Your task to perform on an android device: Go to Wikipedia Image 0: 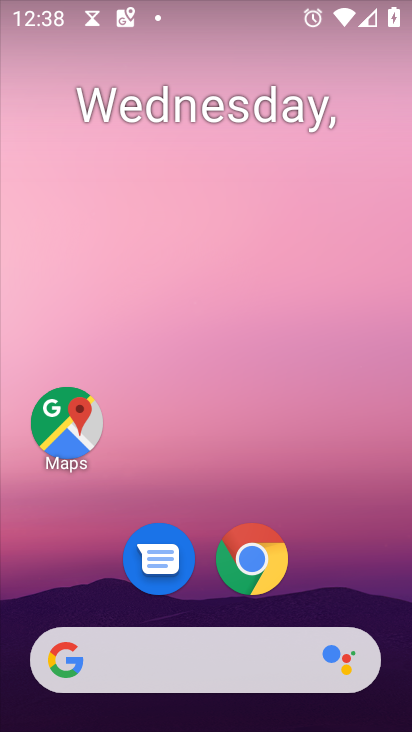
Step 0: drag from (366, 344) to (123, 26)
Your task to perform on an android device: Go to Wikipedia Image 1: 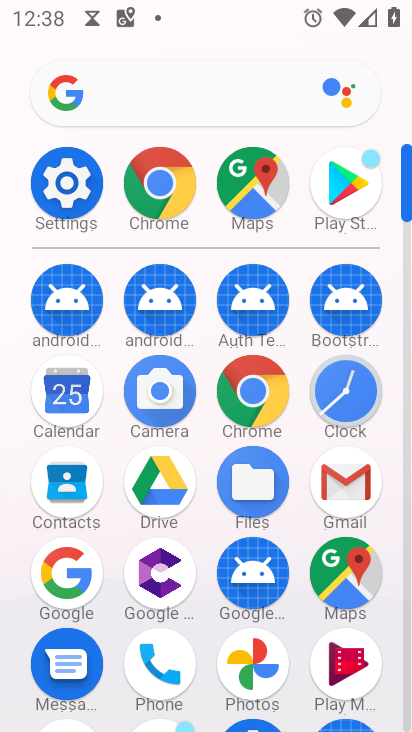
Step 1: click (161, 171)
Your task to perform on an android device: Go to Wikipedia Image 2: 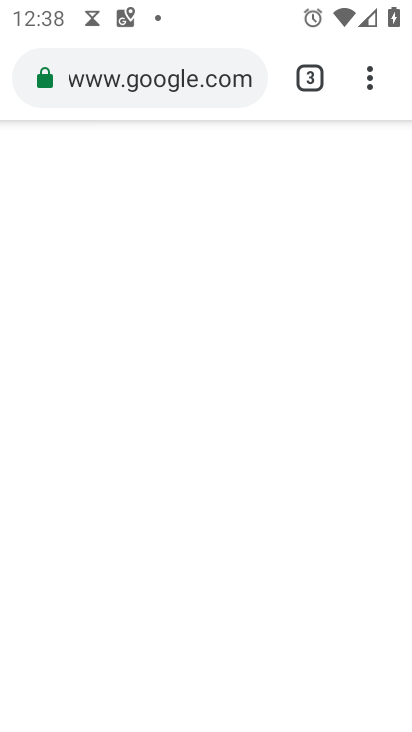
Step 2: click (204, 88)
Your task to perform on an android device: Go to Wikipedia Image 3: 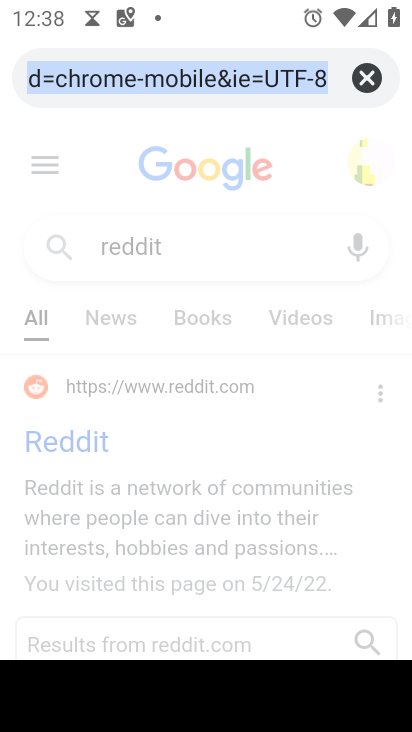
Step 3: click (370, 87)
Your task to perform on an android device: Go to Wikipedia Image 4: 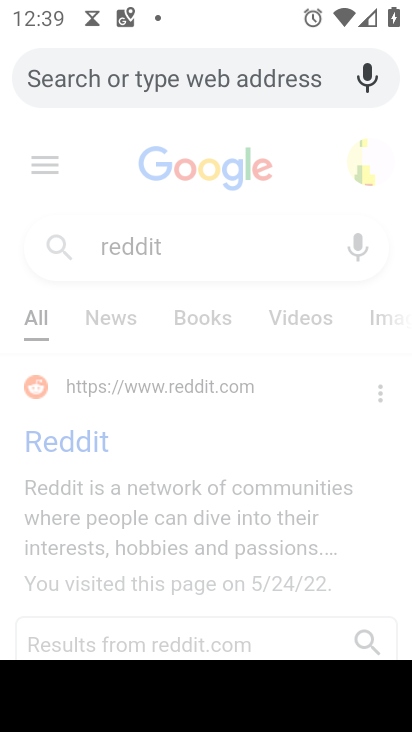
Step 4: type "wikipedia"
Your task to perform on an android device: Go to Wikipedia Image 5: 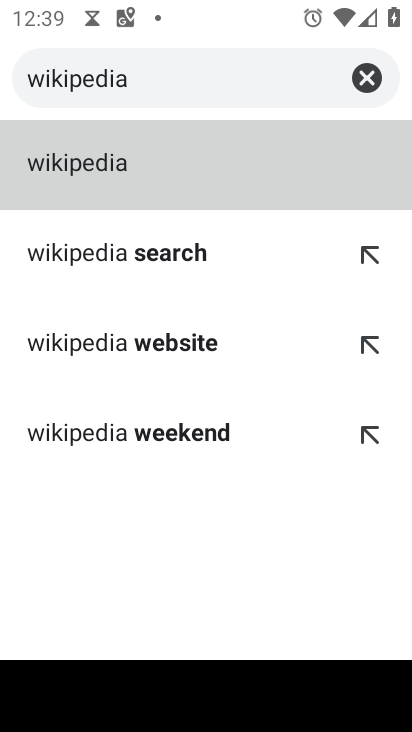
Step 5: click (69, 189)
Your task to perform on an android device: Go to Wikipedia Image 6: 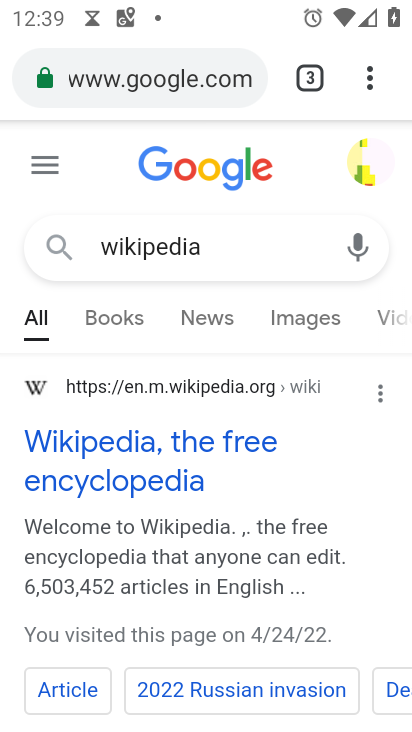
Step 6: click (73, 474)
Your task to perform on an android device: Go to Wikipedia Image 7: 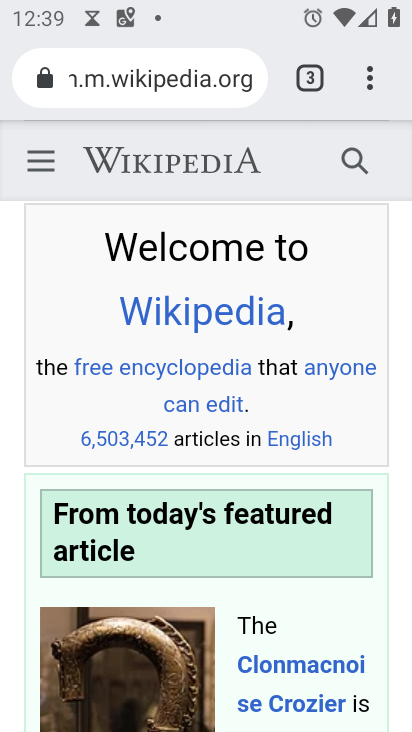
Step 7: task complete